Your task to perform on an android device: see creations saved in the google photos Image 0: 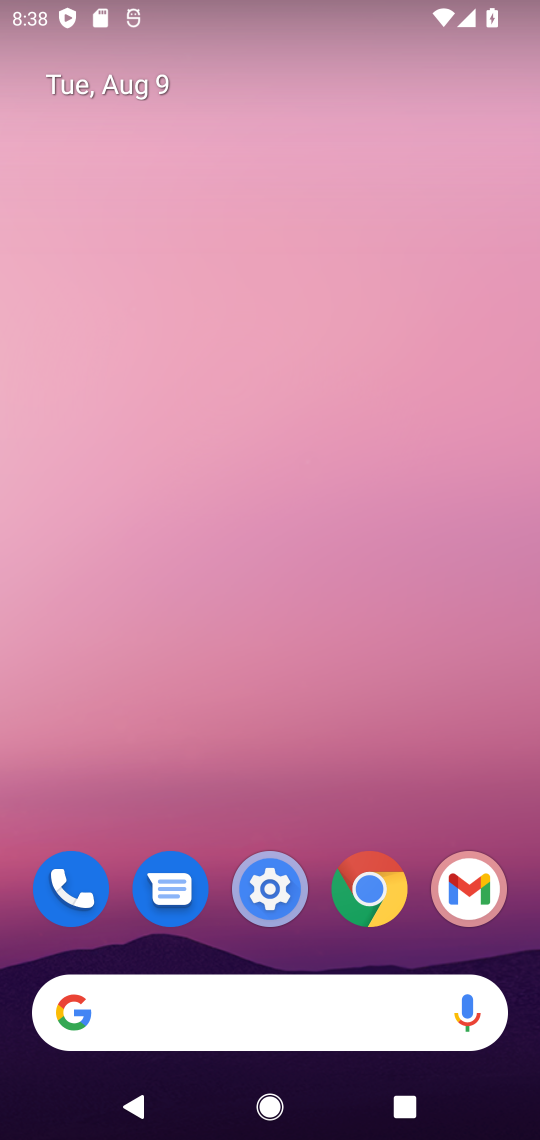
Step 0: drag from (220, 926) to (333, 121)
Your task to perform on an android device: see creations saved in the google photos Image 1: 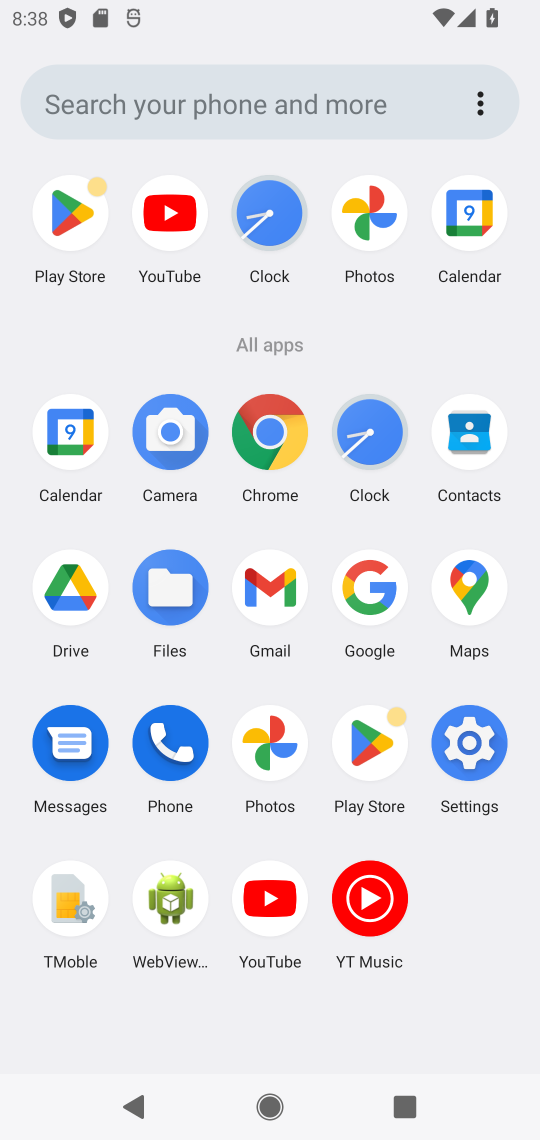
Step 1: click (241, 754)
Your task to perform on an android device: see creations saved in the google photos Image 2: 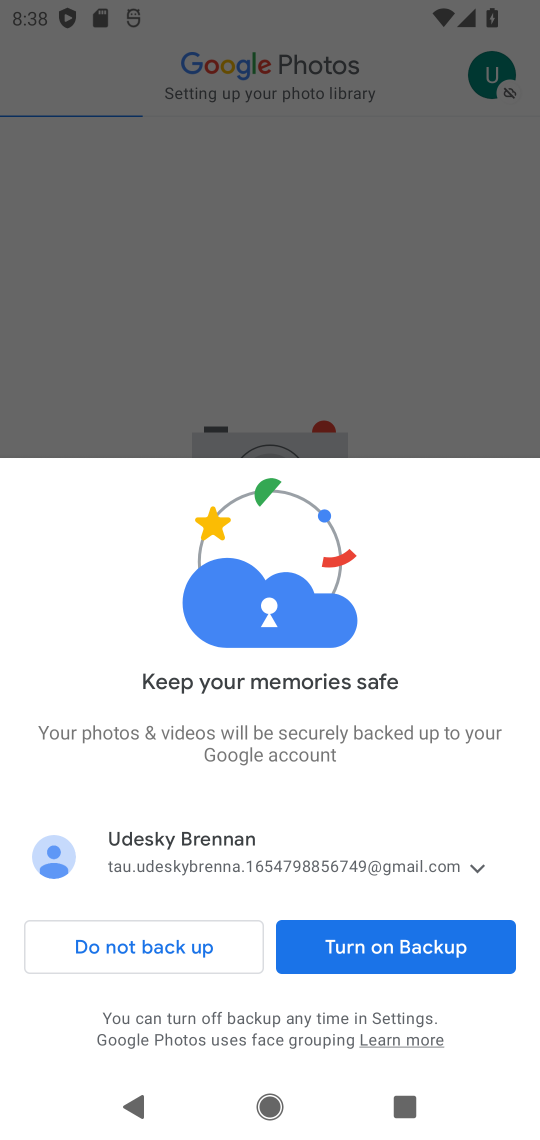
Step 2: click (334, 952)
Your task to perform on an android device: see creations saved in the google photos Image 3: 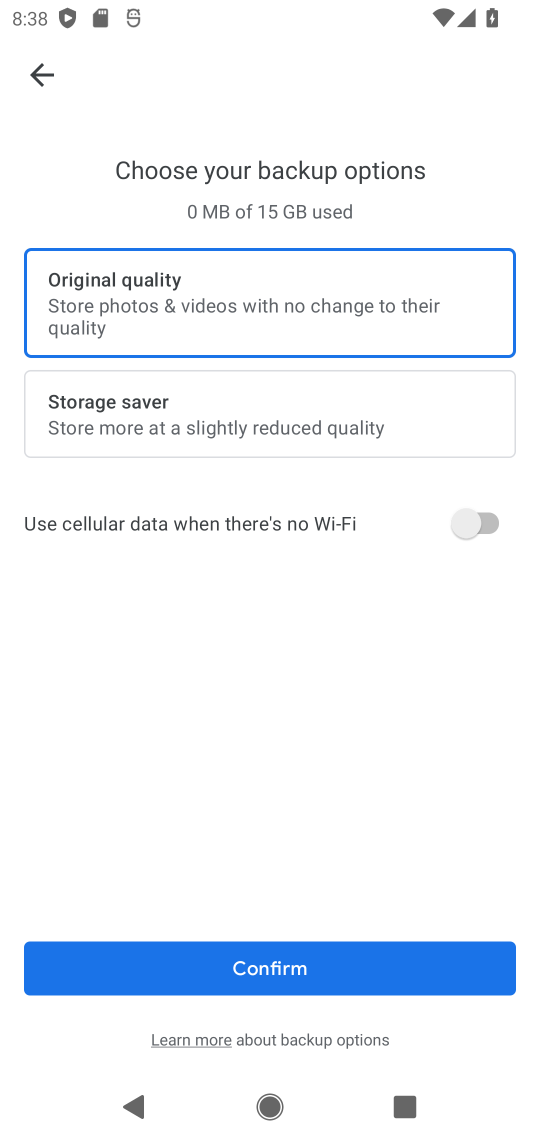
Step 3: click (334, 949)
Your task to perform on an android device: see creations saved in the google photos Image 4: 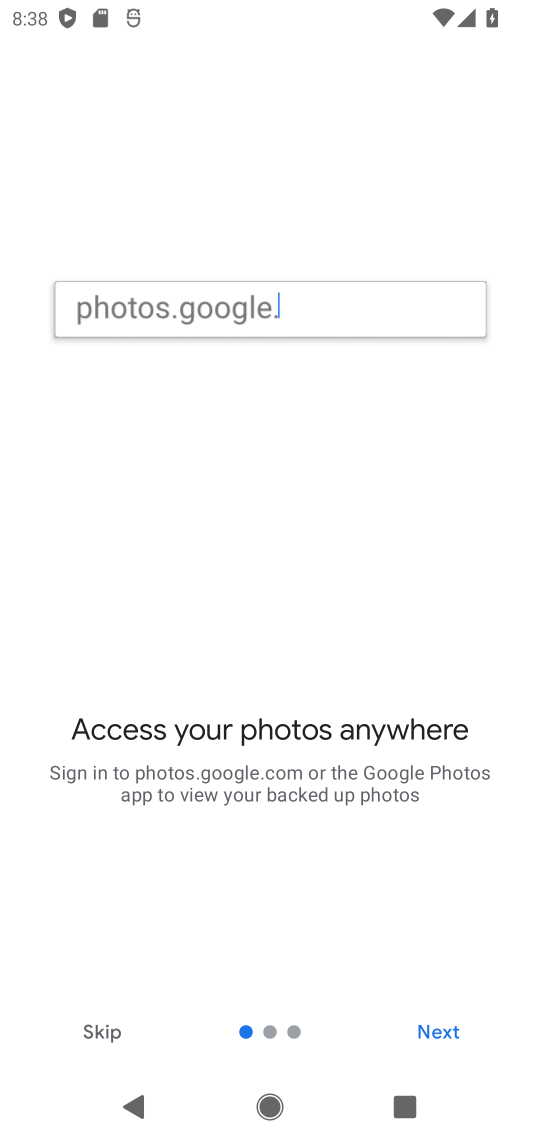
Step 4: click (462, 1026)
Your task to perform on an android device: see creations saved in the google photos Image 5: 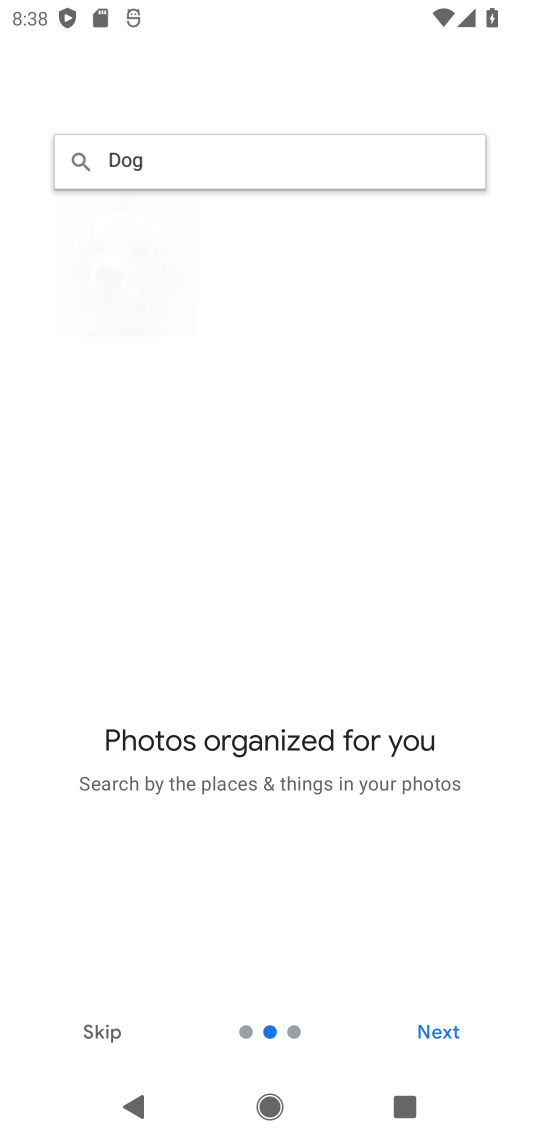
Step 5: click (463, 1026)
Your task to perform on an android device: see creations saved in the google photos Image 6: 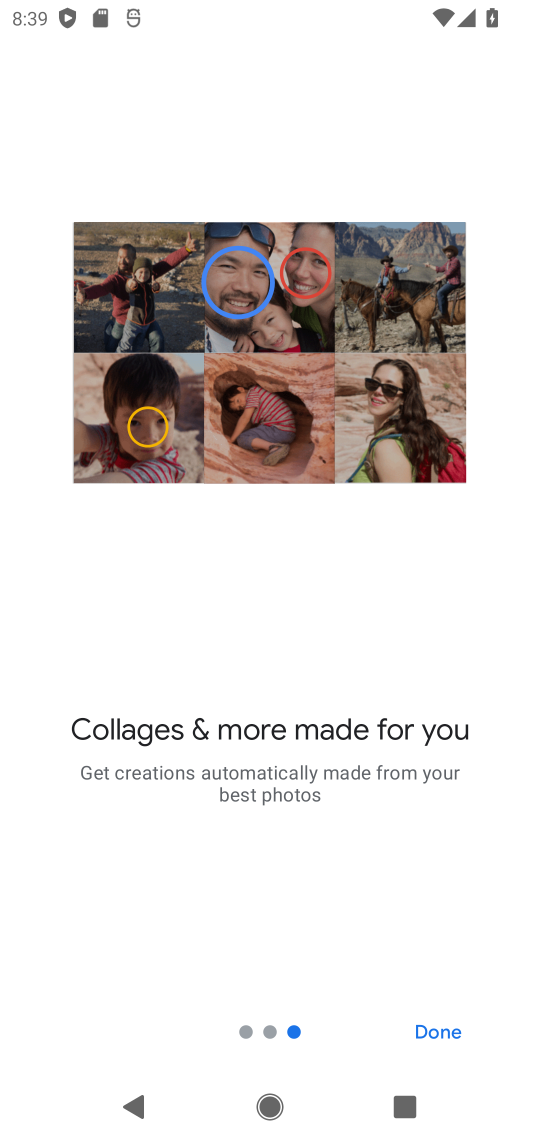
Step 6: click (463, 1026)
Your task to perform on an android device: see creations saved in the google photos Image 7: 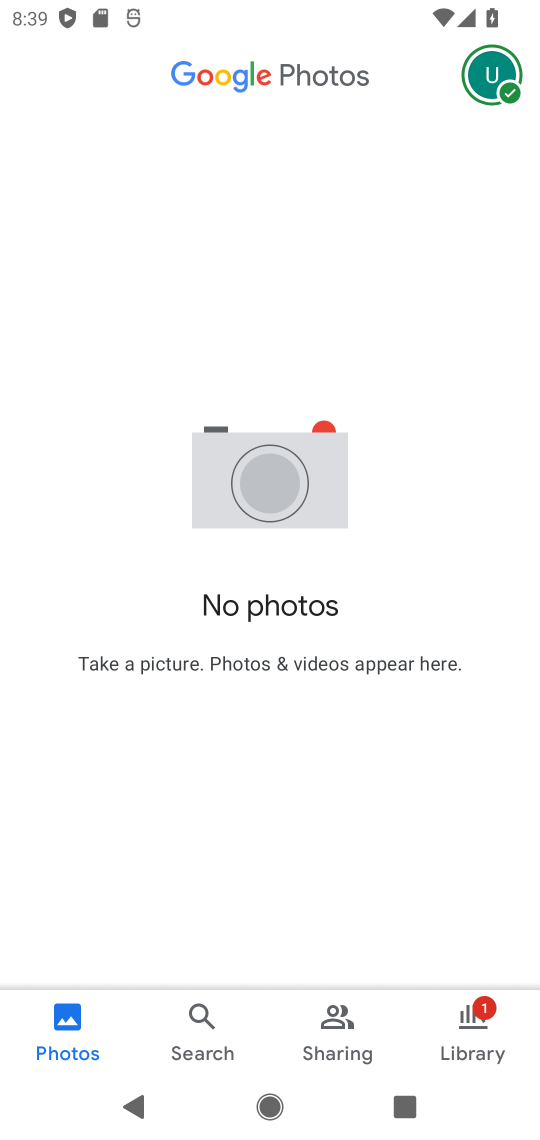
Step 7: task complete